Your task to perform on an android device: turn off location history Image 0: 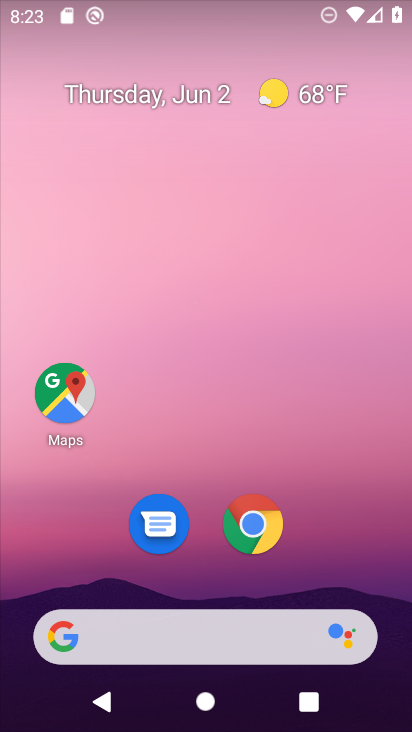
Step 0: drag from (214, 449) to (217, 0)
Your task to perform on an android device: turn off location history Image 1: 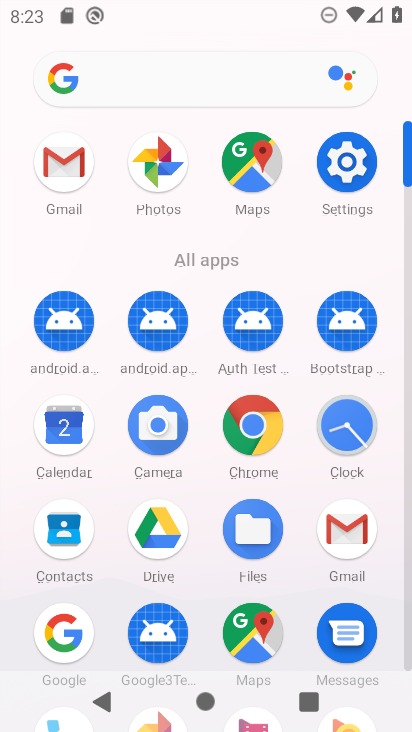
Step 1: click (340, 160)
Your task to perform on an android device: turn off location history Image 2: 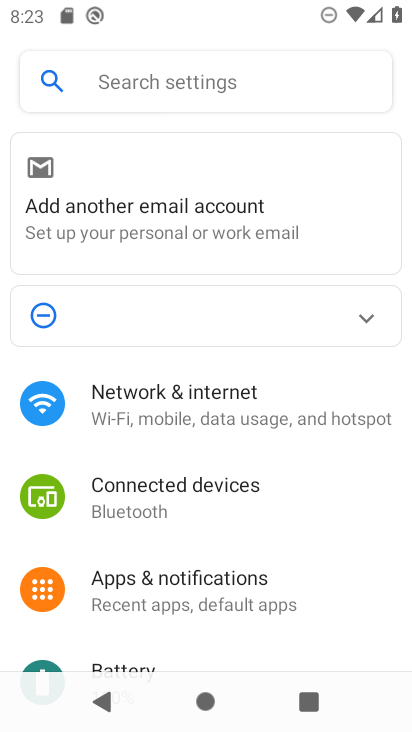
Step 2: drag from (246, 539) to (298, 0)
Your task to perform on an android device: turn off location history Image 3: 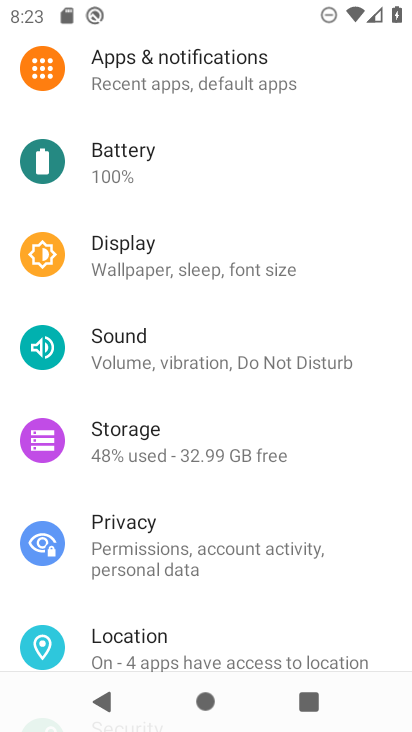
Step 3: click (216, 656)
Your task to perform on an android device: turn off location history Image 4: 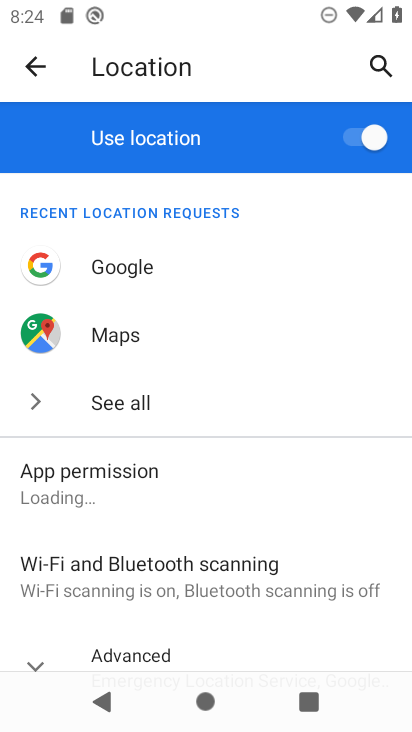
Step 4: click (31, 656)
Your task to perform on an android device: turn off location history Image 5: 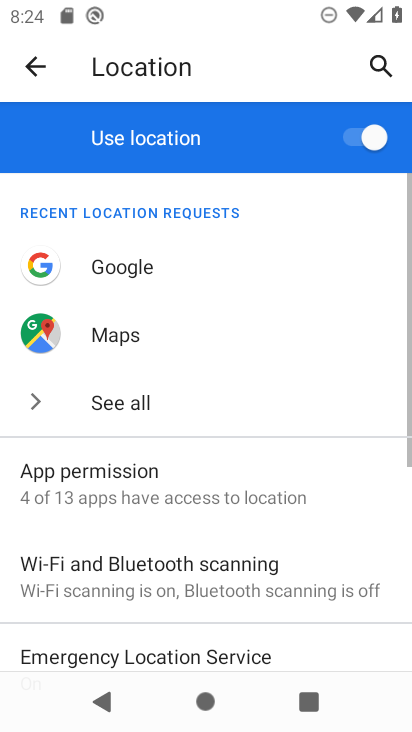
Step 5: drag from (227, 454) to (305, 134)
Your task to perform on an android device: turn off location history Image 6: 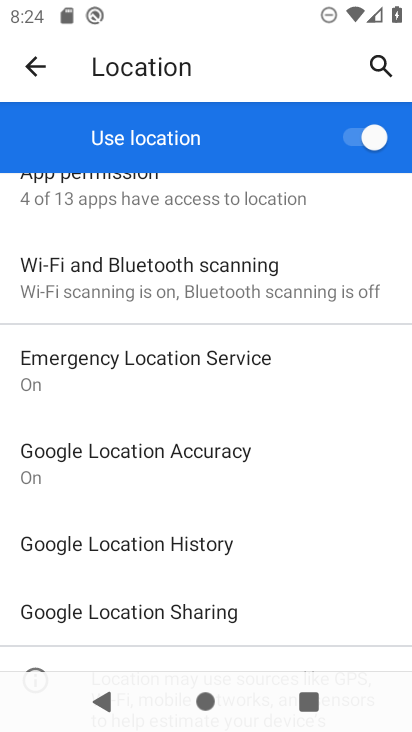
Step 6: click (176, 551)
Your task to perform on an android device: turn off location history Image 7: 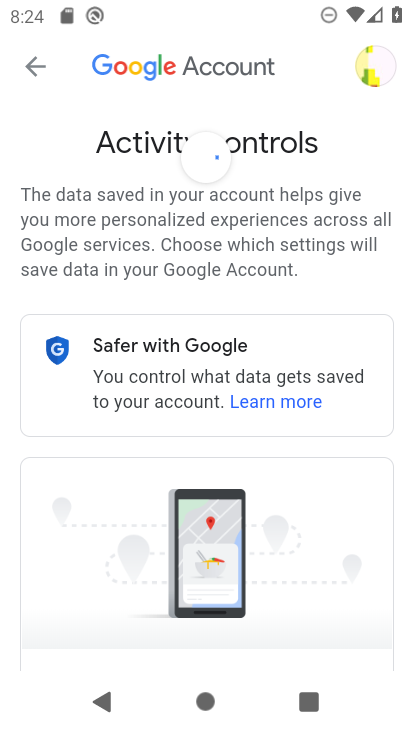
Step 7: drag from (295, 515) to (323, 89)
Your task to perform on an android device: turn off location history Image 8: 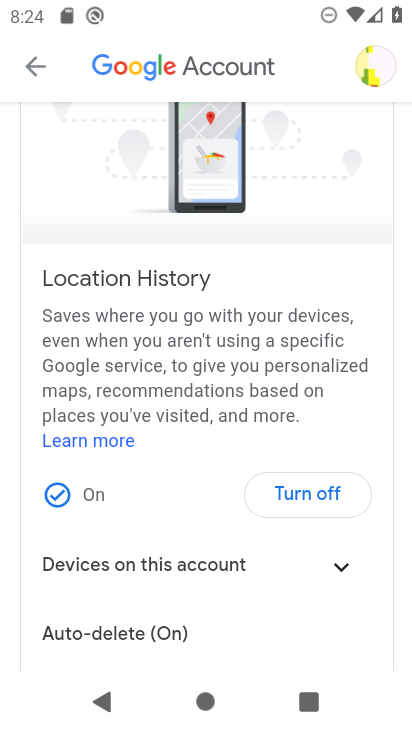
Step 8: click (311, 492)
Your task to perform on an android device: turn off location history Image 9: 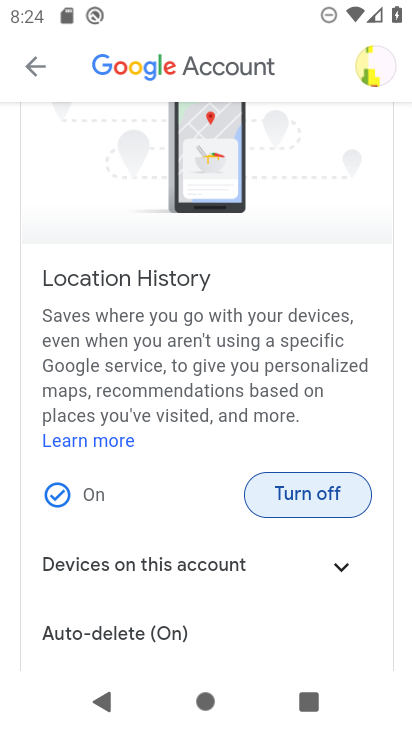
Step 9: click (311, 492)
Your task to perform on an android device: turn off location history Image 10: 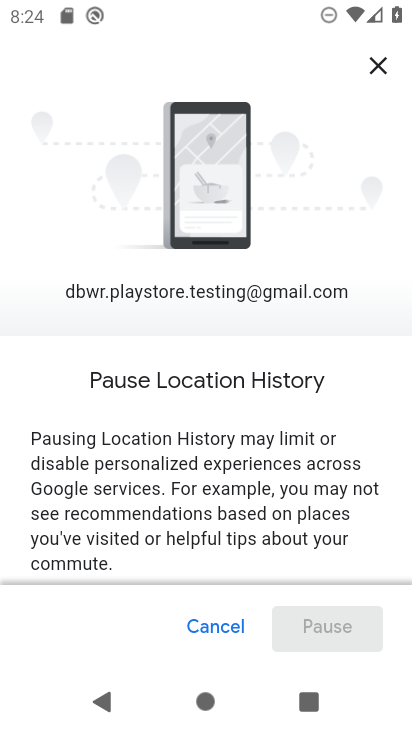
Step 10: drag from (314, 482) to (290, 4)
Your task to perform on an android device: turn off location history Image 11: 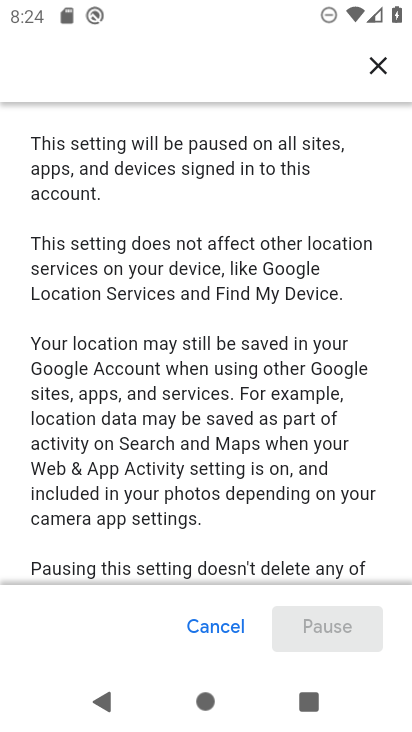
Step 11: drag from (221, 477) to (208, 42)
Your task to perform on an android device: turn off location history Image 12: 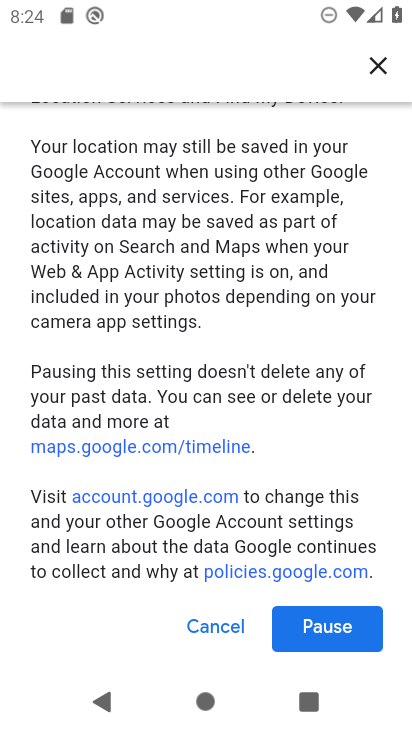
Step 12: click (321, 625)
Your task to perform on an android device: turn off location history Image 13: 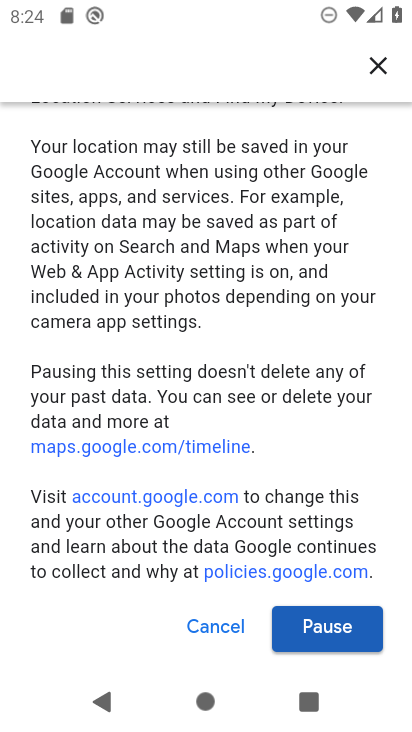
Step 13: click (321, 624)
Your task to perform on an android device: turn off location history Image 14: 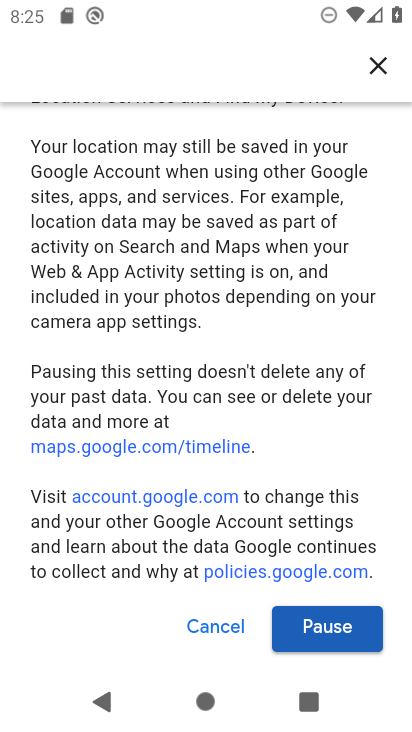
Step 14: click (321, 622)
Your task to perform on an android device: turn off location history Image 15: 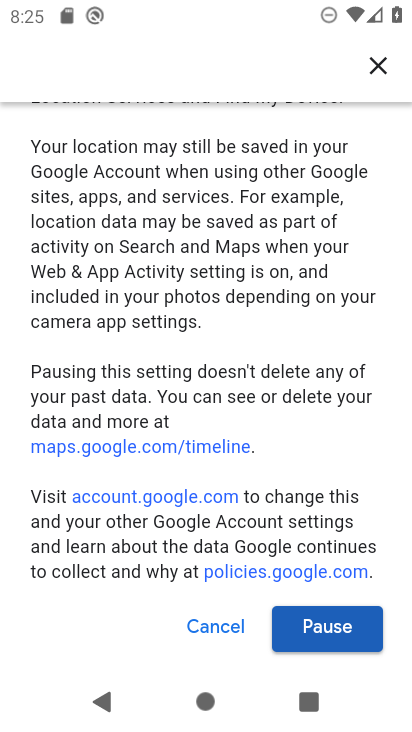
Step 15: click (321, 622)
Your task to perform on an android device: turn off location history Image 16: 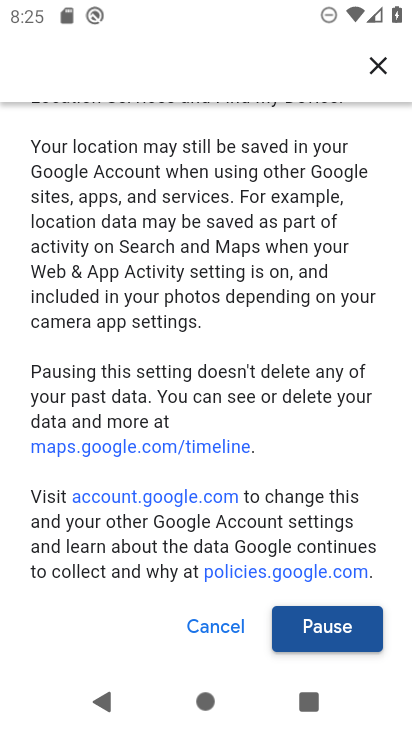
Step 16: click (321, 621)
Your task to perform on an android device: turn off location history Image 17: 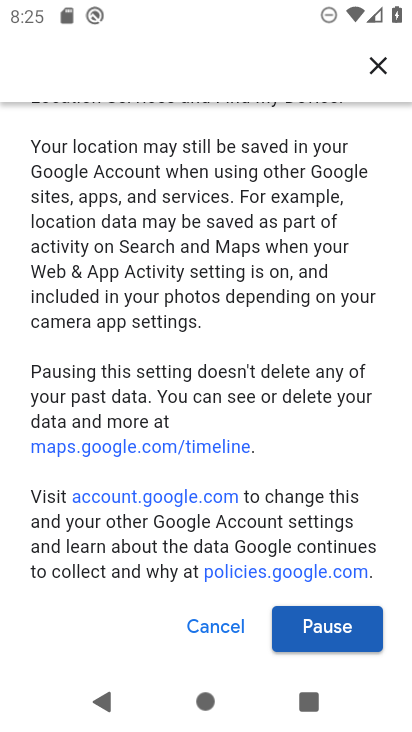
Step 17: click (321, 621)
Your task to perform on an android device: turn off location history Image 18: 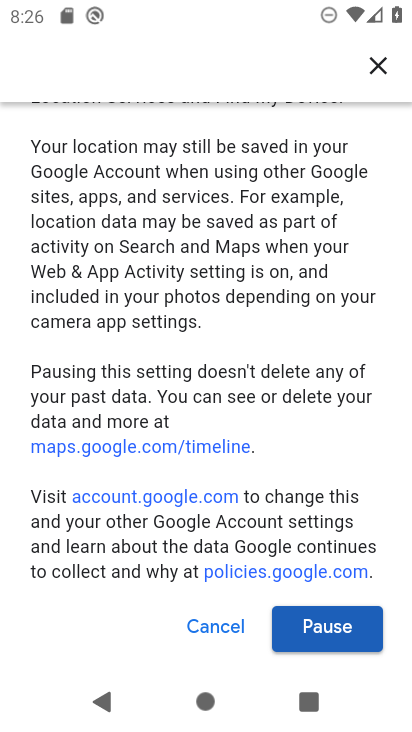
Step 18: click (321, 619)
Your task to perform on an android device: turn off location history Image 19: 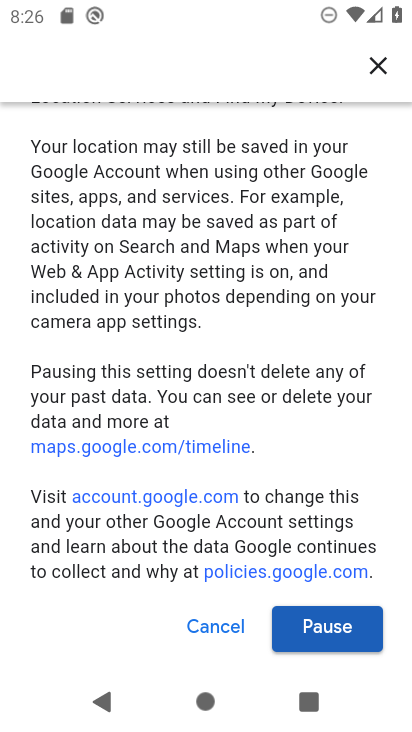
Step 19: click (329, 625)
Your task to perform on an android device: turn off location history Image 20: 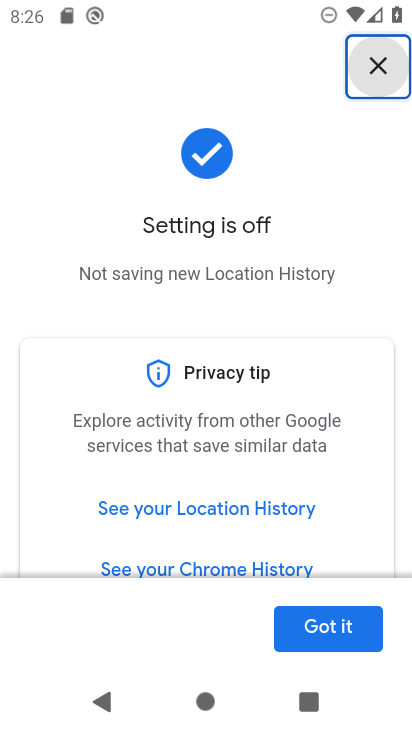
Step 20: click (329, 625)
Your task to perform on an android device: turn off location history Image 21: 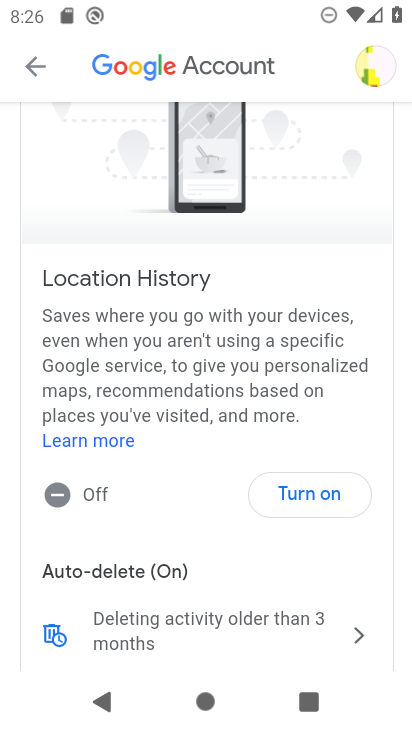
Step 21: task complete